Your task to perform on an android device: turn off picture-in-picture Image 0: 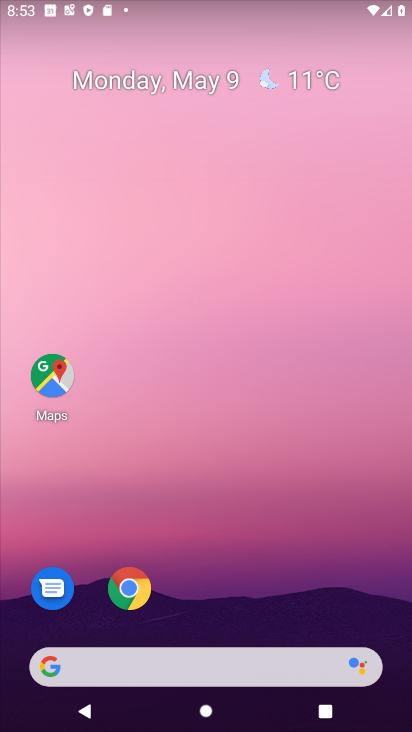
Step 0: press home button
Your task to perform on an android device: turn off picture-in-picture Image 1: 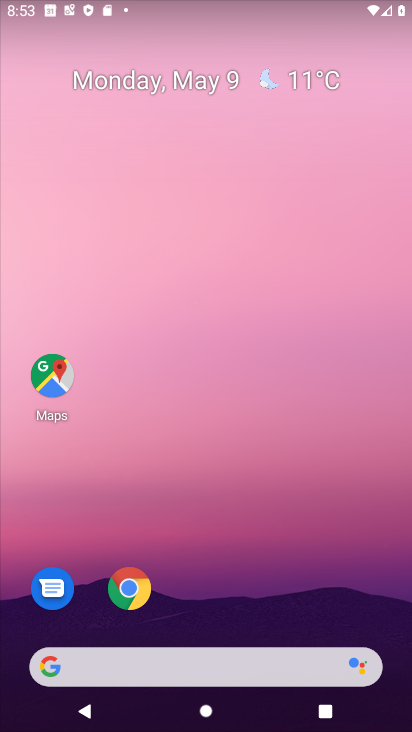
Step 1: click (131, 586)
Your task to perform on an android device: turn off picture-in-picture Image 2: 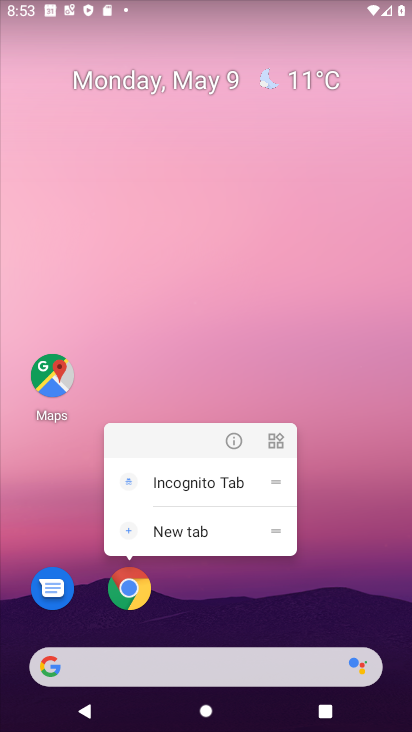
Step 2: click (239, 439)
Your task to perform on an android device: turn off picture-in-picture Image 3: 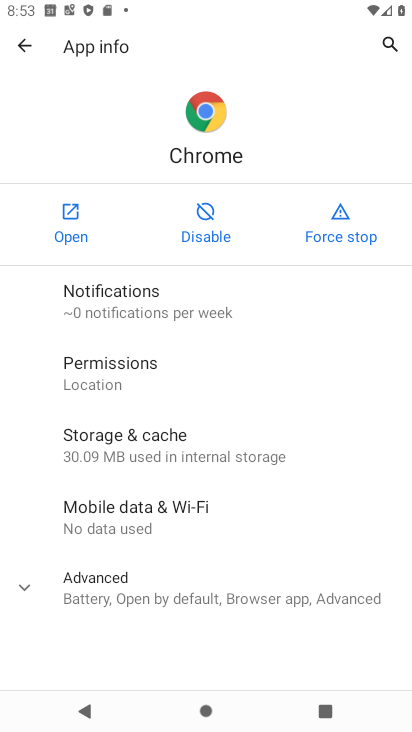
Step 3: click (86, 582)
Your task to perform on an android device: turn off picture-in-picture Image 4: 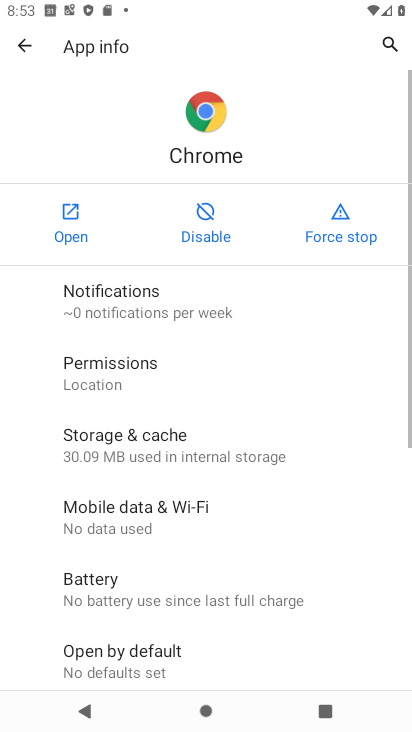
Step 4: drag from (209, 636) to (318, 138)
Your task to perform on an android device: turn off picture-in-picture Image 5: 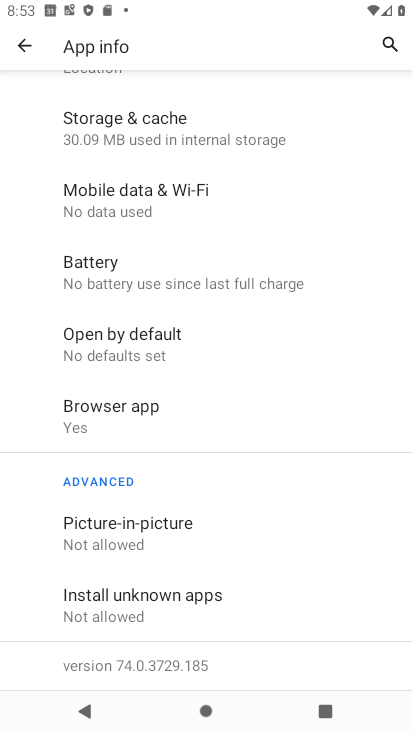
Step 5: click (113, 523)
Your task to perform on an android device: turn off picture-in-picture Image 6: 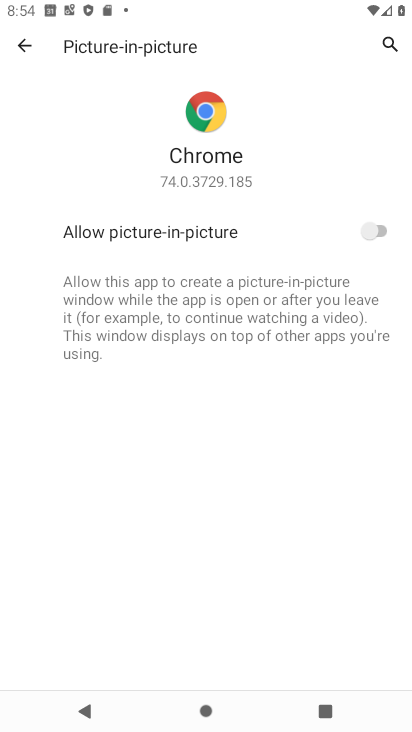
Step 6: task complete